Your task to perform on an android device: clear history in the chrome app Image 0: 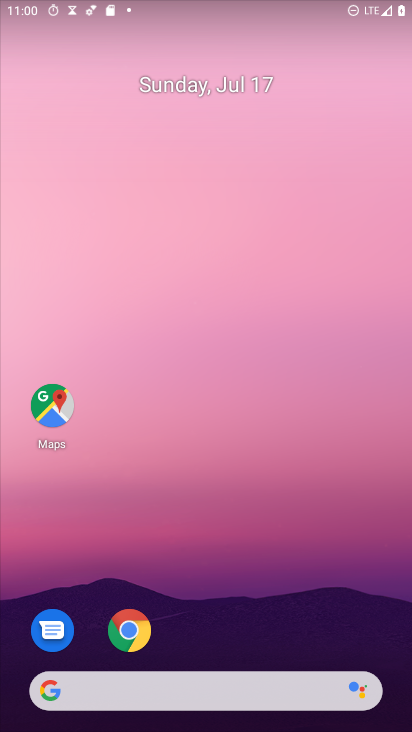
Step 0: drag from (236, 500) to (215, 74)
Your task to perform on an android device: clear history in the chrome app Image 1: 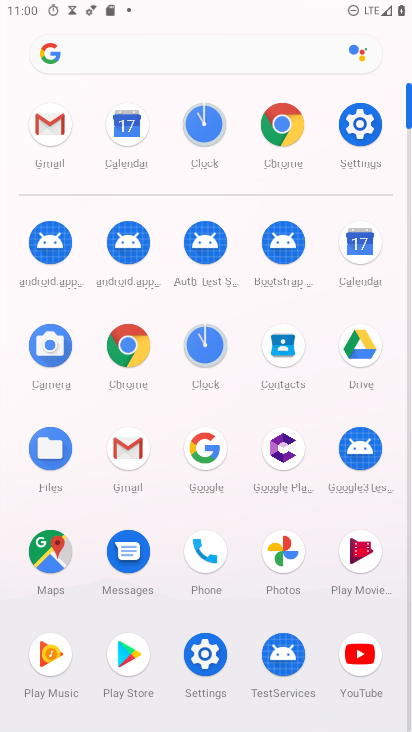
Step 1: click (139, 334)
Your task to perform on an android device: clear history in the chrome app Image 2: 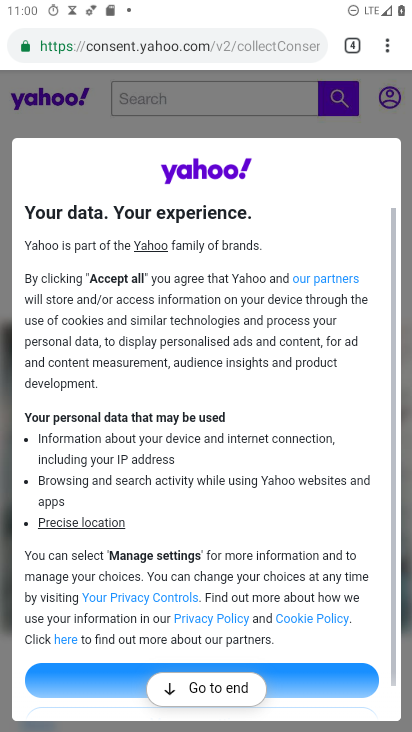
Step 2: drag from (387, 35) to (275, 262)
Your task to perform on an android device: clear history in the chrome app Image 3: 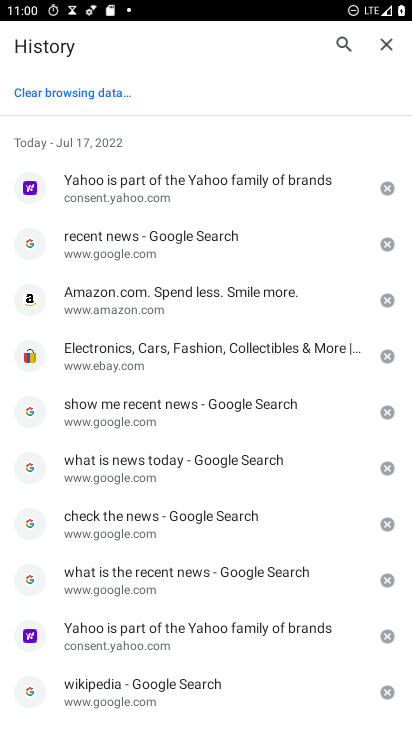
Step 3: click (48, 102)
Your task to perform on an android device: clear history in the chrome app Image 4: 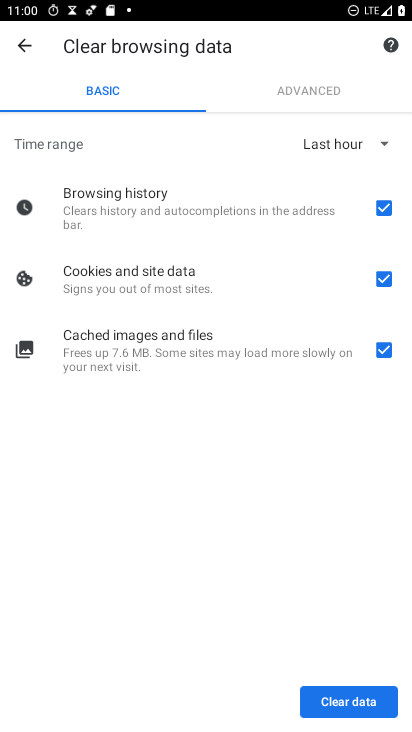
Step 4: click (353, 701)
Your task to perform on an android device: clear history in the chrome app Image 5: 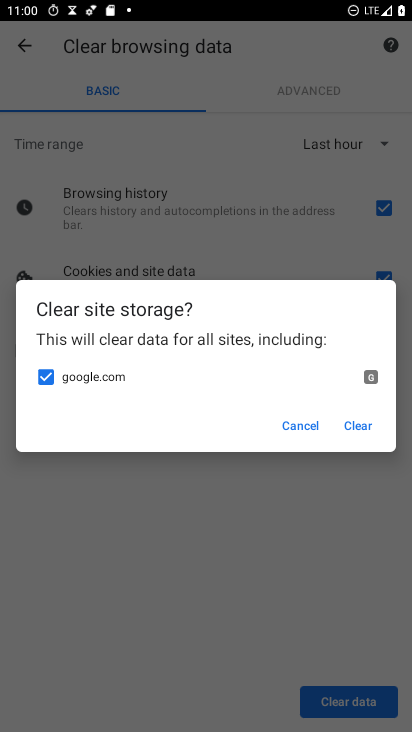
Step 5: click (374, 418)
Your task to perform on an android device: clear history in the chrome app Image 6: 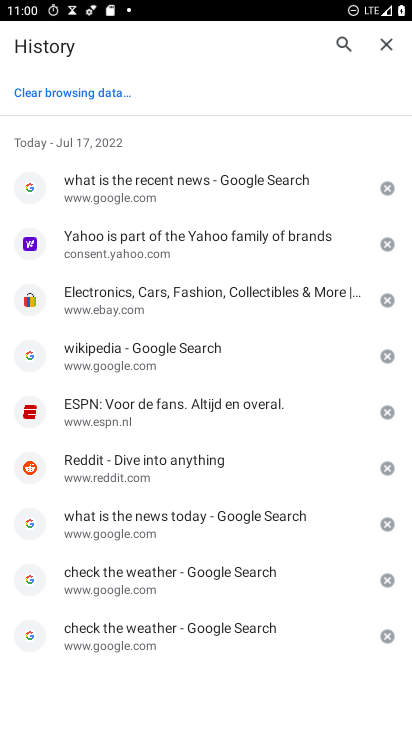
Step 6: click (384, 187)
Your task to perform on an android device: clear history in the chrome app Image 7: 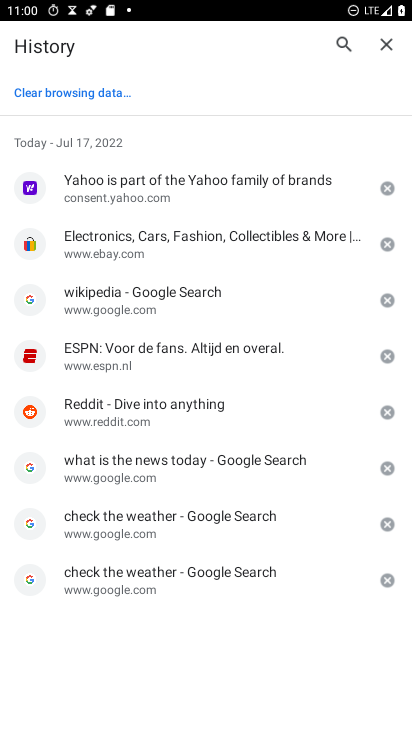
Step 7: click (384, 187)
Your task to perform on an android device: clear history in the chrome app Image 8: 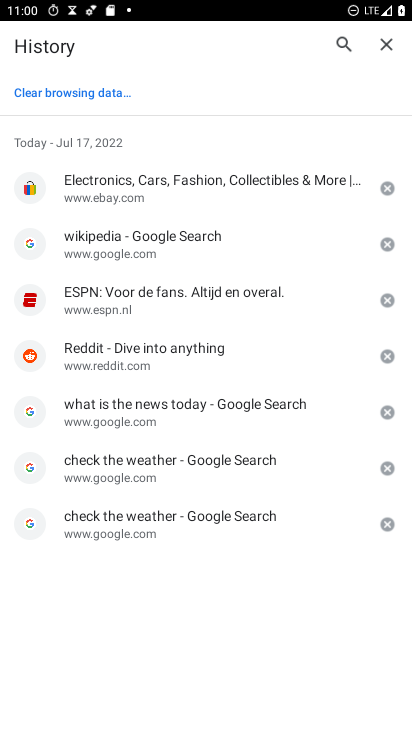
Step 8: click (384, 187)
Your task to perform on an android device: clear history in the chrome app Image 9: 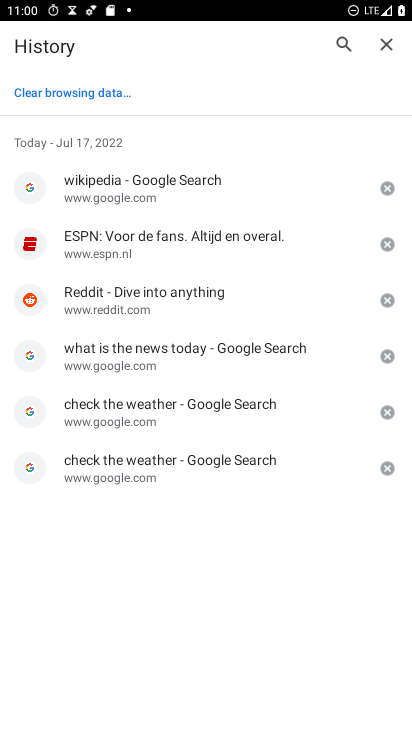
Step 9: click (384, 187)
Your task to perform on an android device: clear history in the chrome app Image 10: 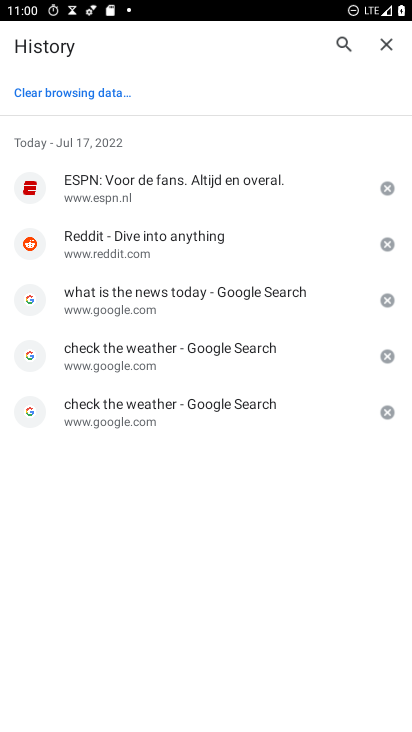
Step 10: click (384, 187)
Your task to perform on an android device: clear history in the chrome app Image 11: 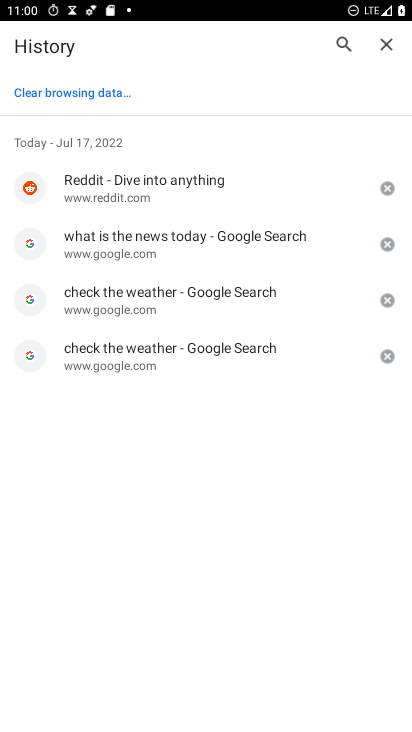
Step 11: click (384, 187)
Your task to perform on an android device: clear history in the chrome app Image 12: 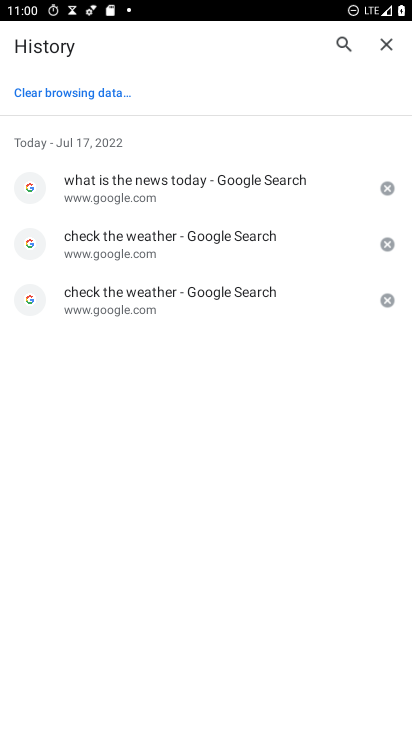
Step 12: click (384, 187)
Your task to perform on an android device: clear history in the chrome app Image 13: 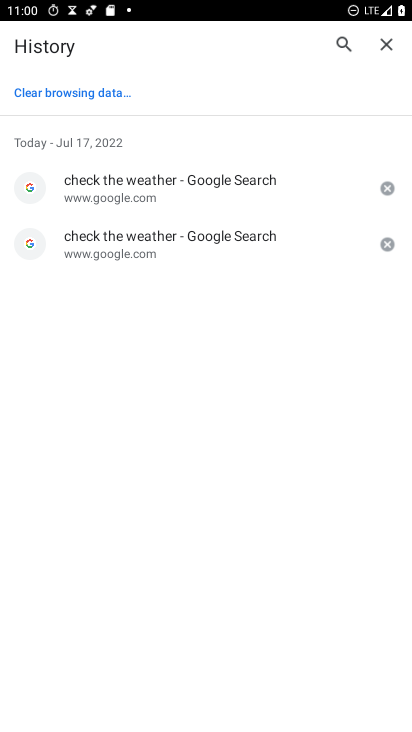
Step 13: click (384, 187)
Your task to perform on an android device: clear history in the chrome app Image 14: 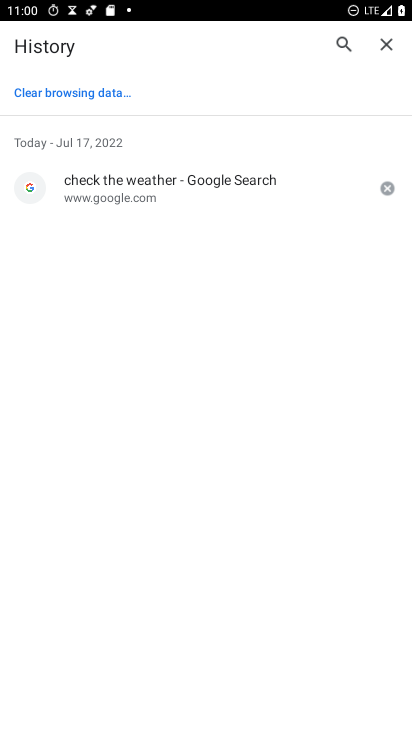
Step 14: click (384, 187)
Your task to perform on an android device: clear history in the chrome app Image 15: 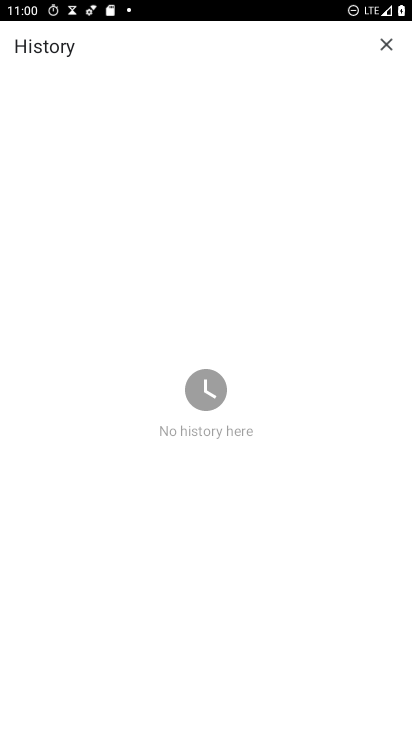
Step 15: task complete